Your task to perform on an android device: turn on notifications settings in the gmail app Image 0: 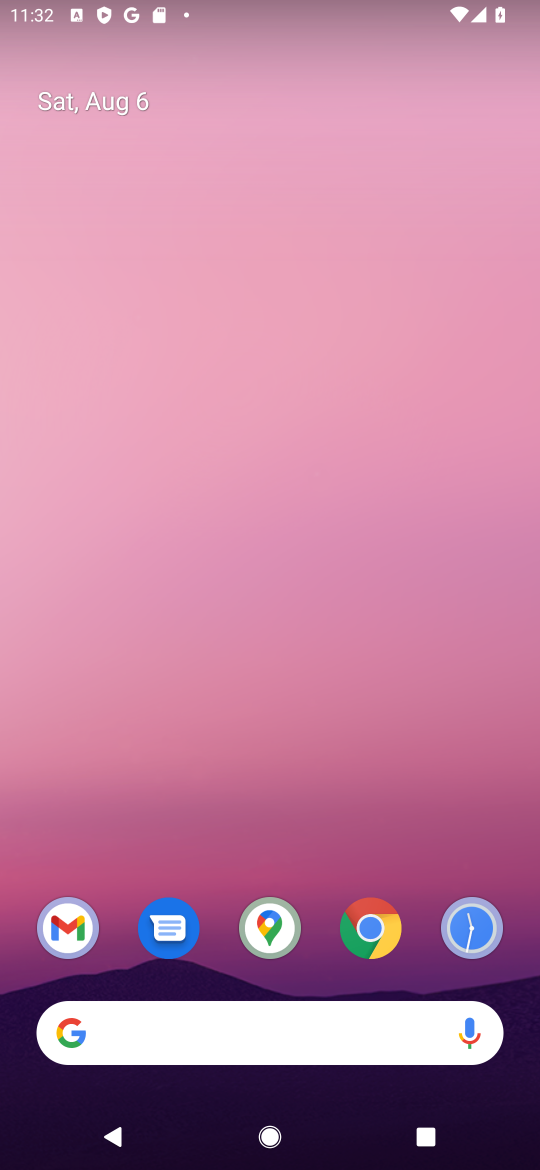
Step 0: click (105, 916)
Your task to perform on an android device: turn on notifications settings in the gmail app Image 1: 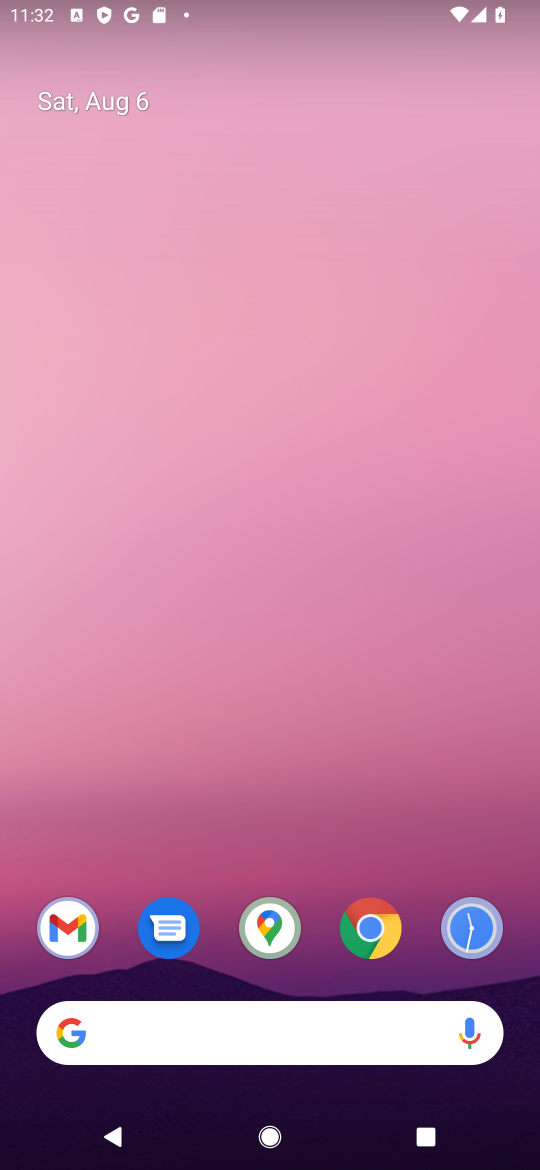
Step 1: click (43, 939)
Your task to perform on an android device: turn on notifications settings in the gmail app Image 2: 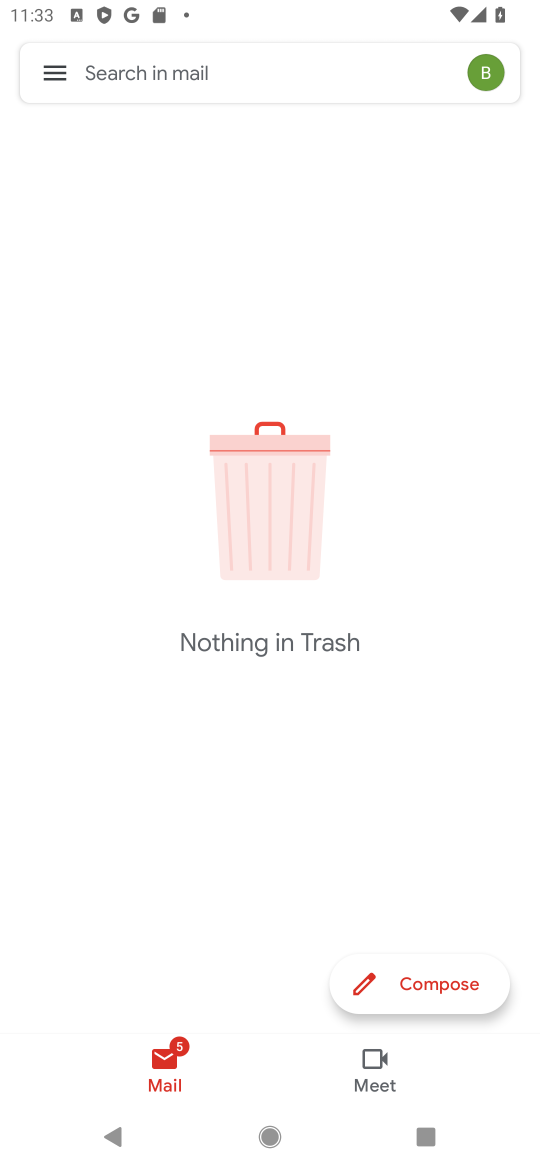
Step 2: click (48, 65)
Your task to perform on an android device: turn on notifications settings in the gmail app Image 3: 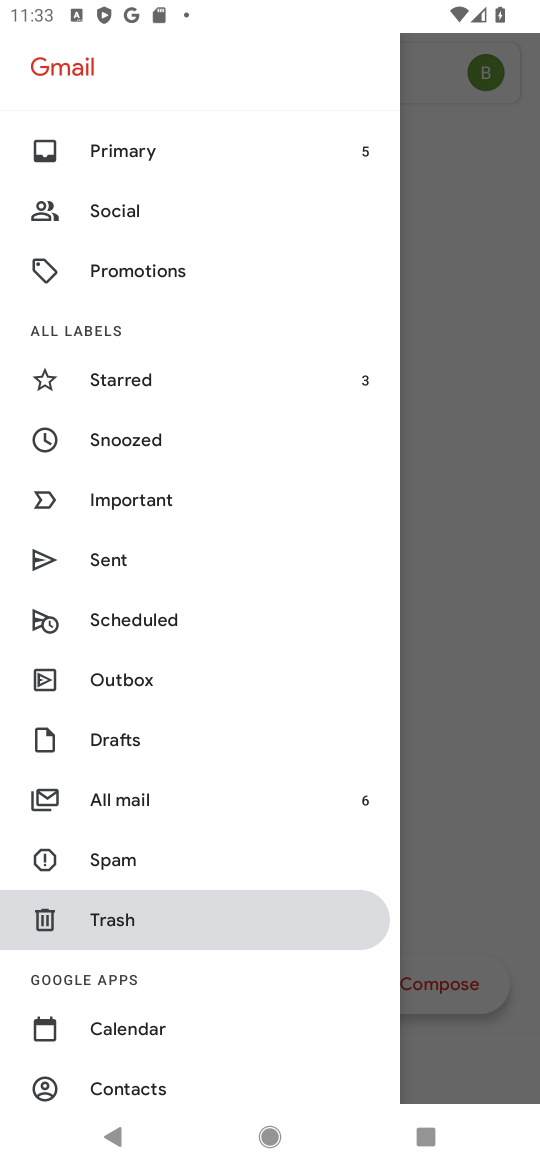
Step 3: drag from (260, 757) to (227, 215)
Your task to perform on an android device: turn on notifications settings in the gmail app Image 4: 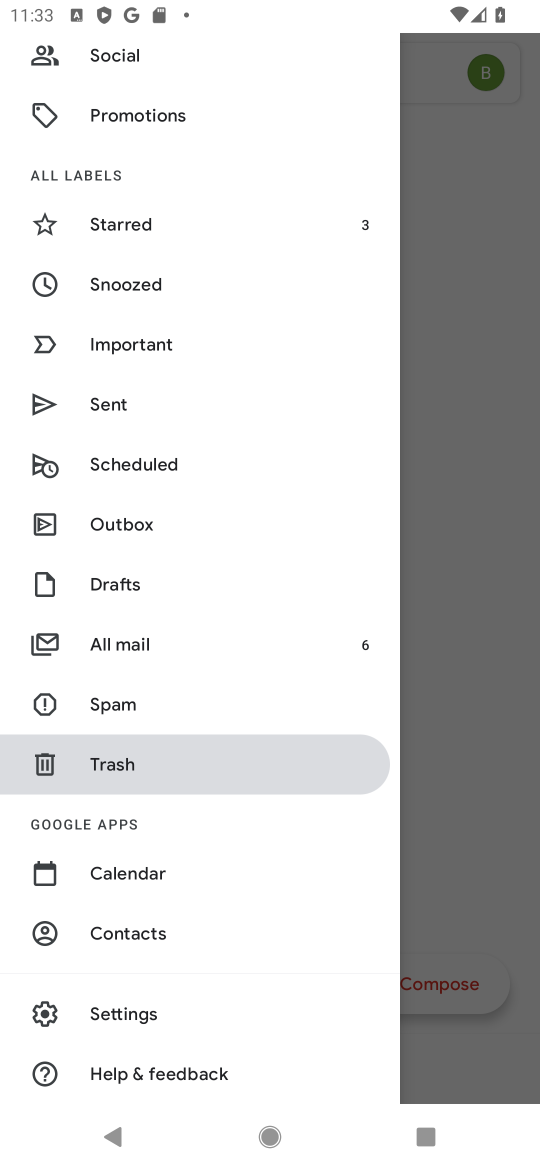
Step 4: click (122, 1007)
Your task to perform on an android device: turn on notifications settings in the gmail app Image 5: 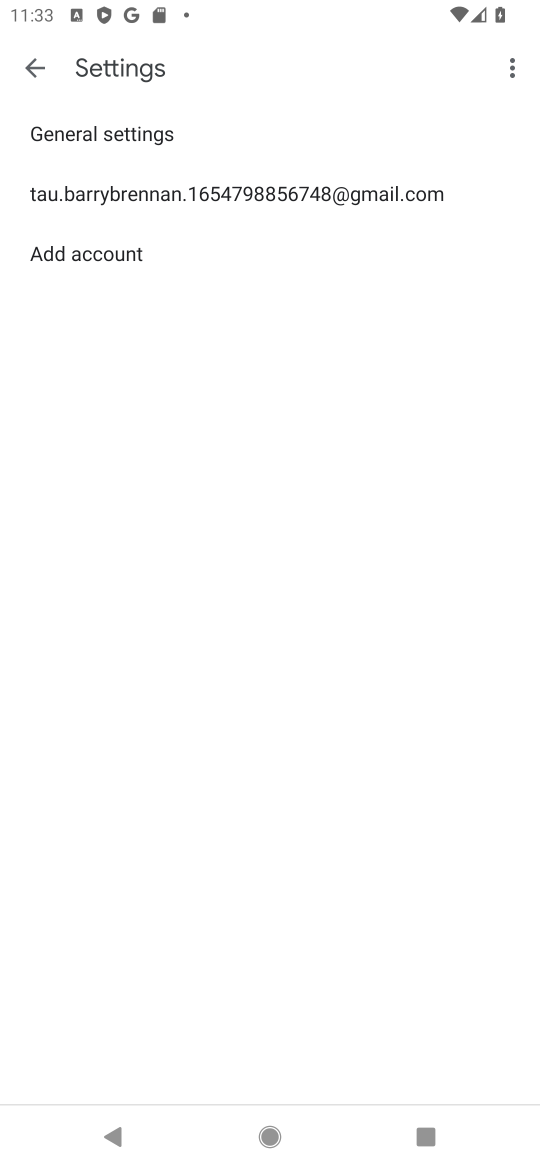
Step 5: click (90, 147)
Your task to perform on an android device: turn on notifications settings in the gmail app Image 6: 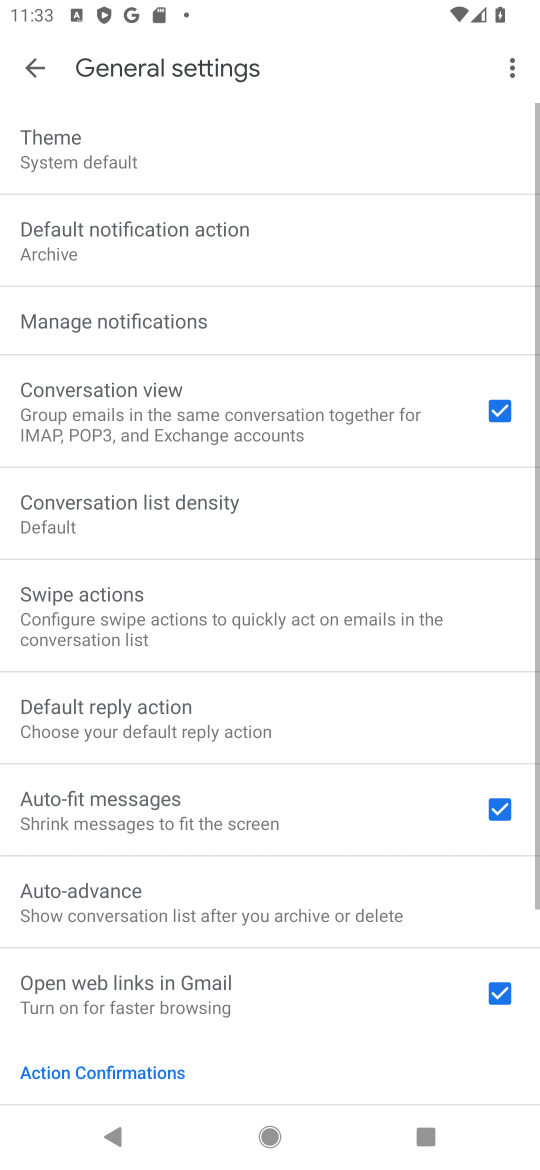
Step 6: click (69, 129)
Your task to perform on an android device: turn on notifications settings in the gmail app Image 7: 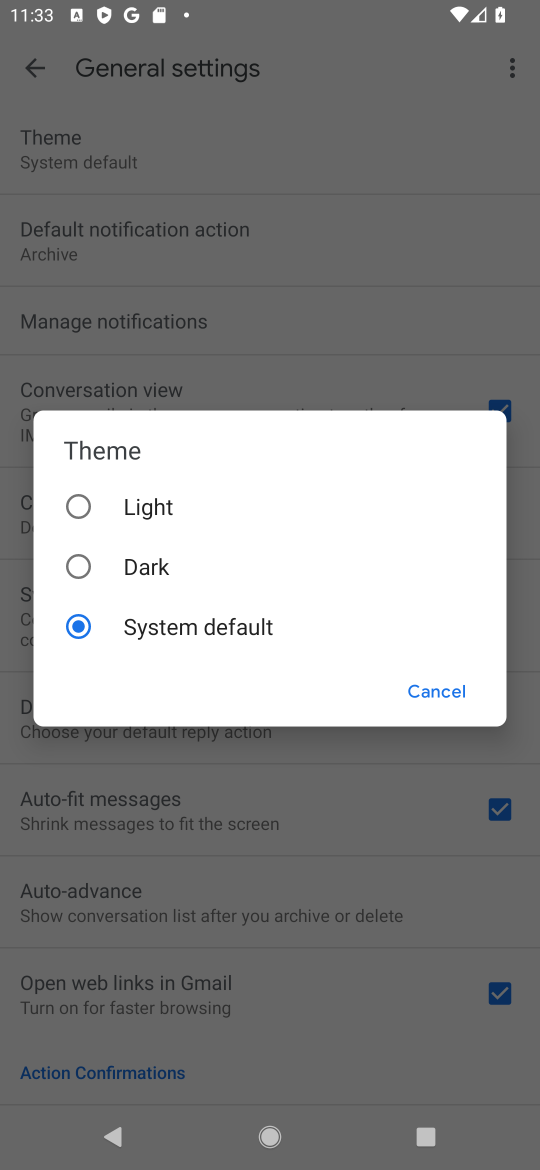
Step 7: click (410, 685)
Your task to perform on an android device: turn on notifications settings in the gmail app Image 8: 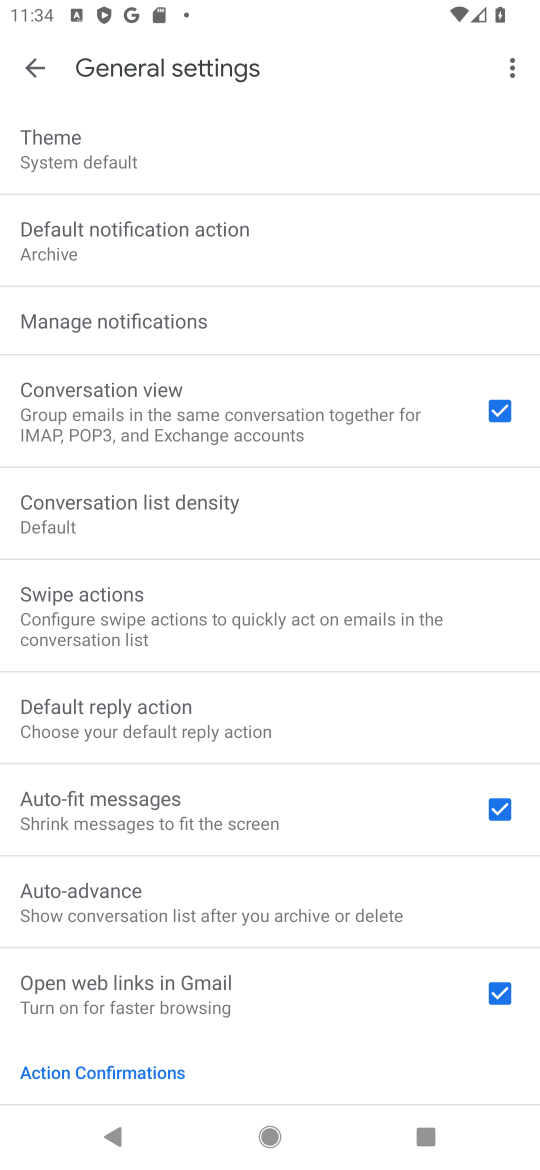
Step 8: click (103, 325)
Your task to perform on an android device: turn on notifications settings in the gmail app Image 9: 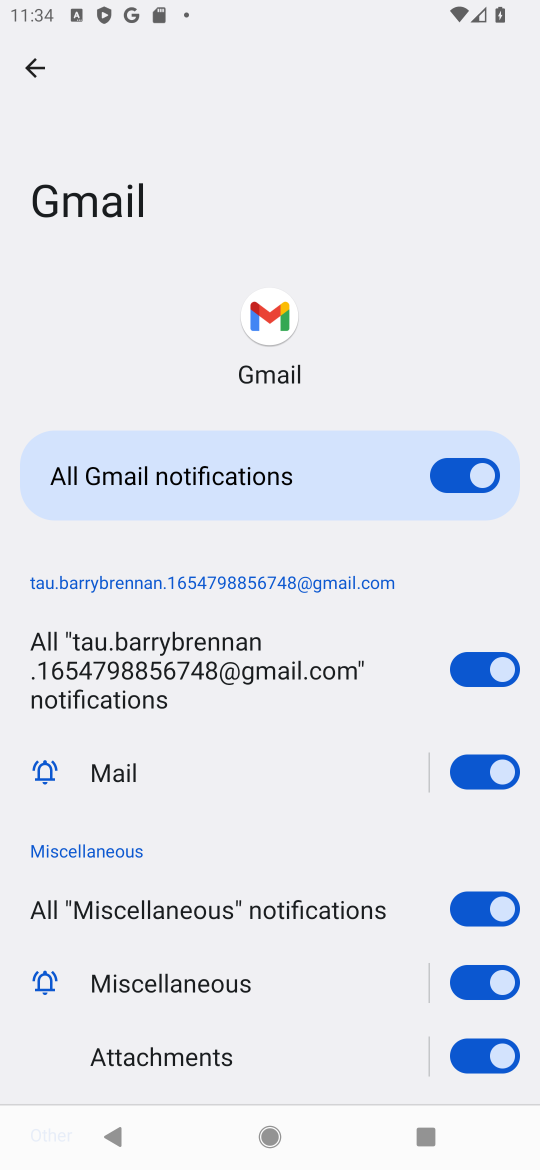
Step 9: task complete